Your task to perform on an android device: Open the web browser Image 0: 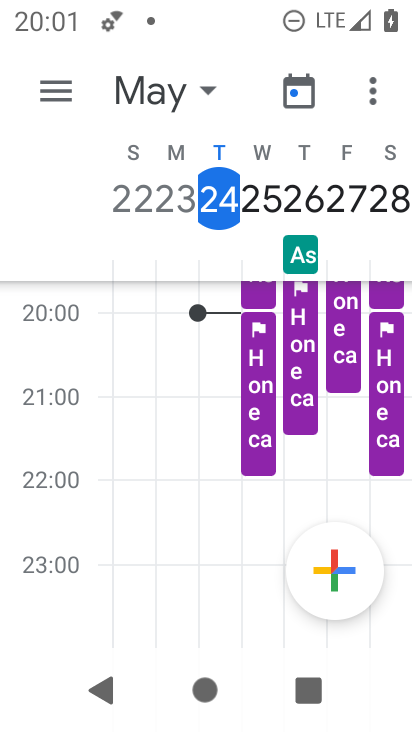
Step 0: press home button
Your task to perform on an android device: Open the web browser Image 1: 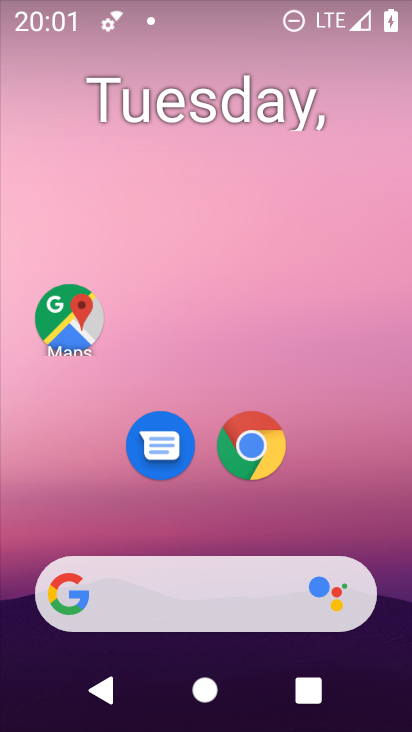
Step 1: click (259, 463)
Your task to perform on an android device: Open the web browser Image 2: 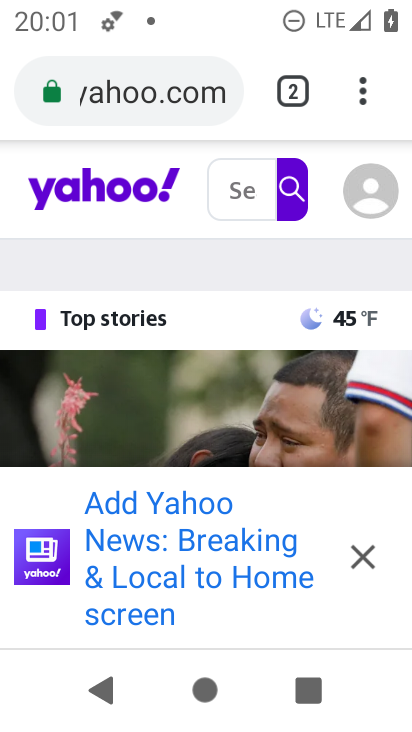
Step 2: task complete